Your task to perform on an android device: check the backup settings in the google photos Image 0: 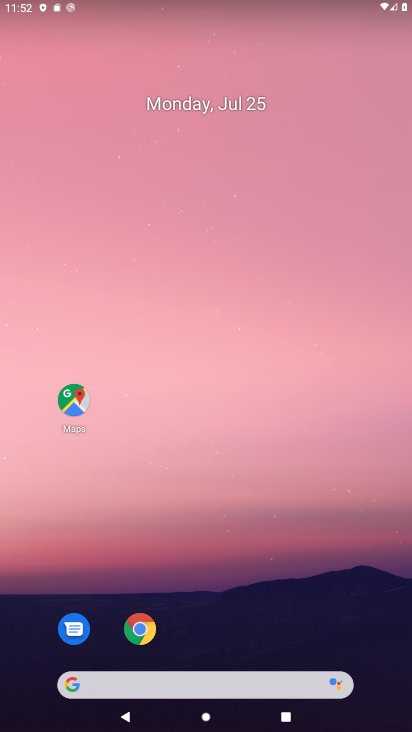
Step 0: drag from (325, 599) to (226, 73)
Your task to perform on an android device: check the backup settings in the google photos Image 1: 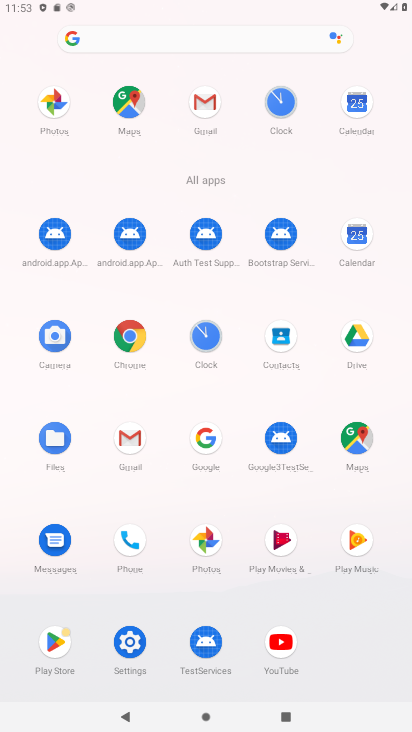
Step 1: click (198, 535)
Your task to perform on an android device: check the backup settings in the google photos Image 2: 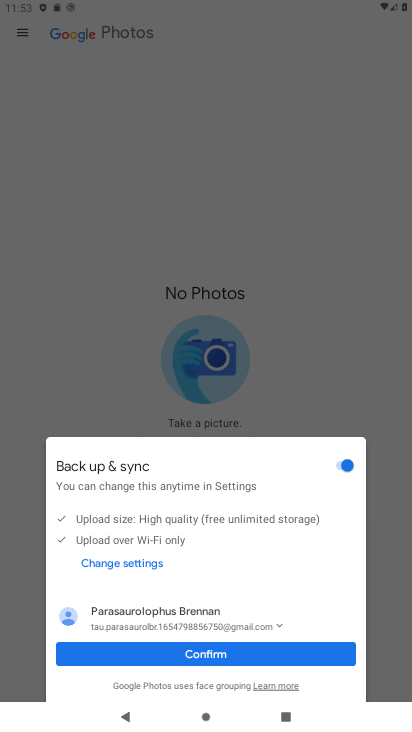
Step 2: click (227, 654)
Your task to perform on an android device: check the backup settings in the google photos Image 3: 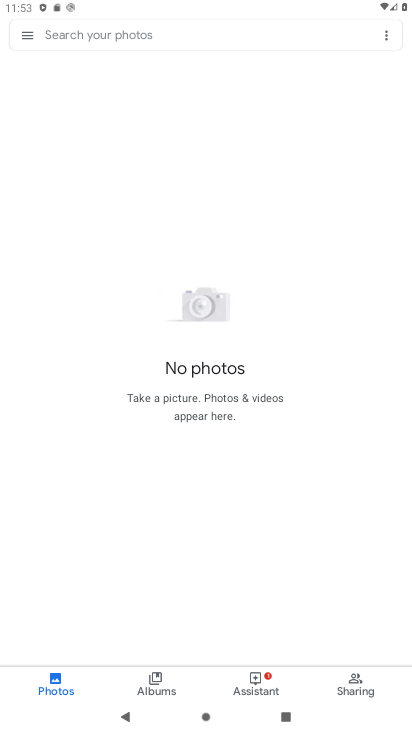
Step 3: click (34, 32)
Your task to perform on an android device: check the backup settings in the google photos Image 4: 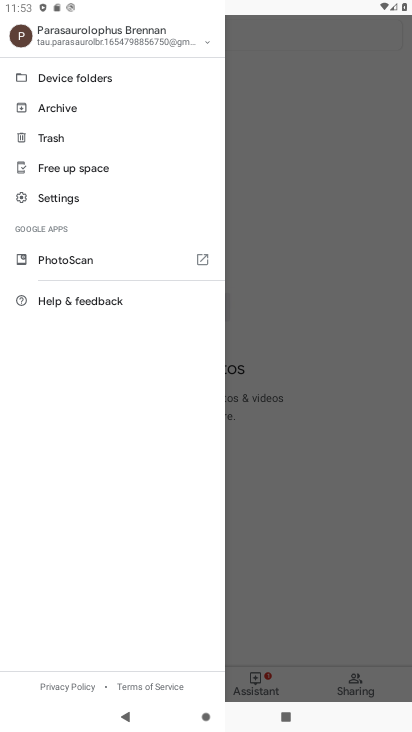
Step 4: click (45, 202)
Your task to perform on an android device: check the backup settings in the google photos Image 5: 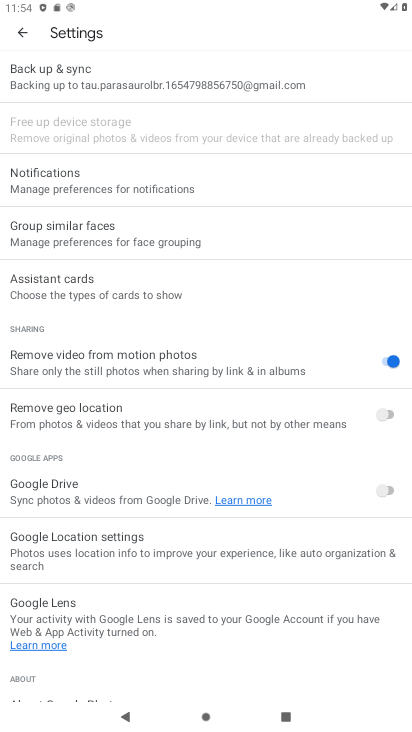
Step 5: click (134, 82)
Your task to perform on an android device: check the backup settings in the google photos Image 6: 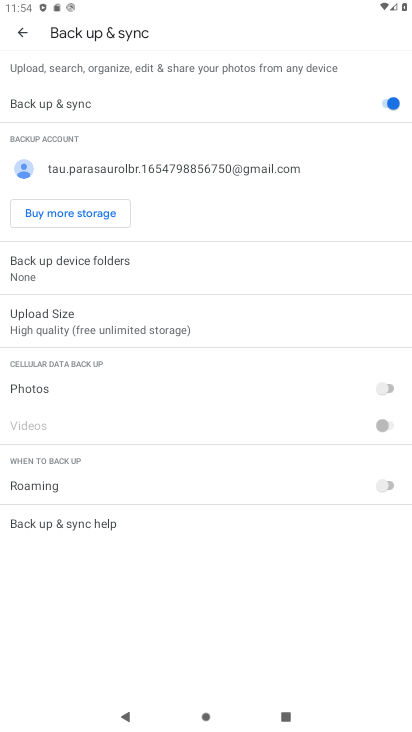
Step 6: task complete